Your task to perform on an android device: turn on sleep mode Image 0: 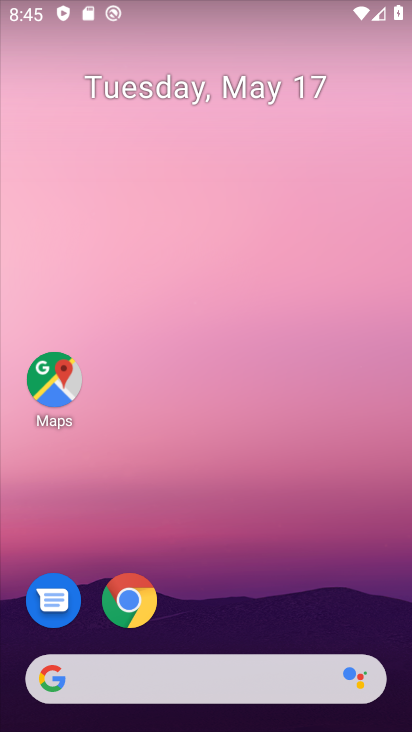
Step 0: drag from (266, 596) to (289, 128)
Your task to perform on an android device: turn on sleep mode Image 1: 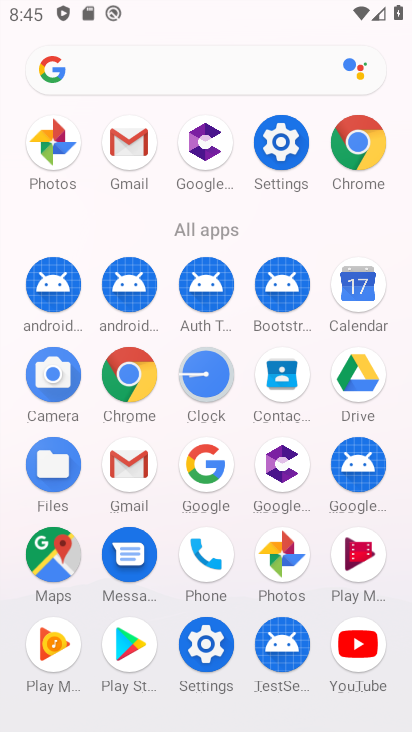
Step 1: click (288, 148)
Your task to perform on an android device: turn on sleep mode Image 2: 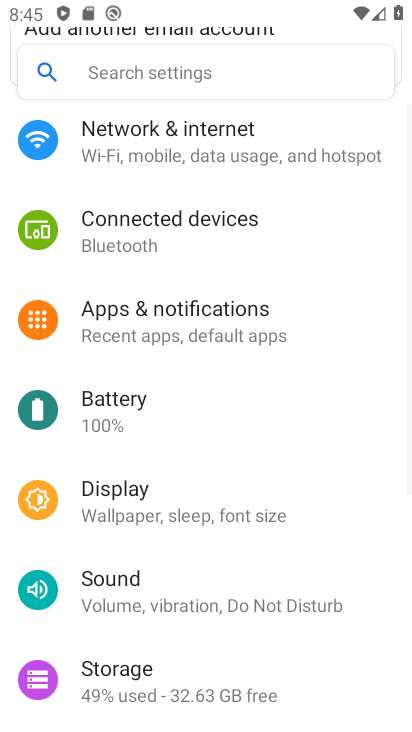
Step 2: click (183, 504)
Your task to perform on an android device: turn on sleep mode Image 3: 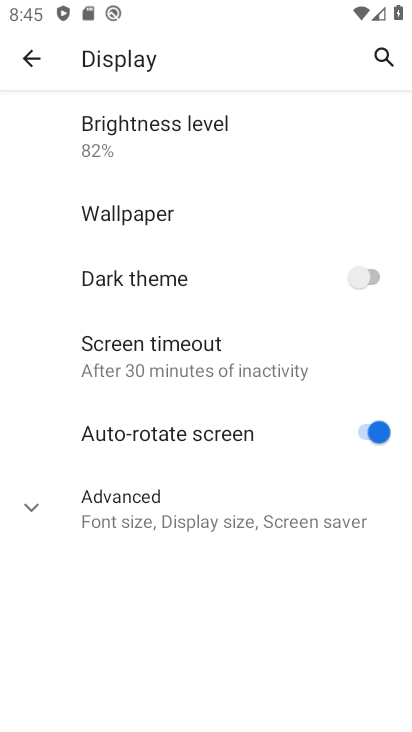
Step 3: click (187, 508)
Your task to perform on an android device: turn on sleep mode Image 4: 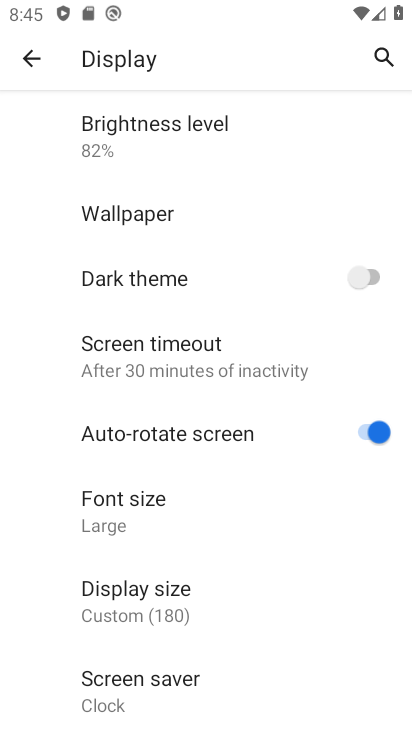
Step 4: task complete